Your task to perform on an android device: turn pop-ups on in chrome Image 0: 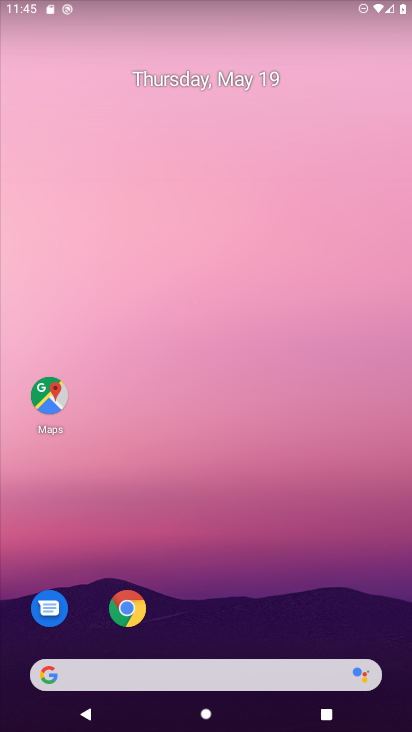
Step 0: press home button
Your task to perform on an android device: turn pop-ups on in chrome Image 1: 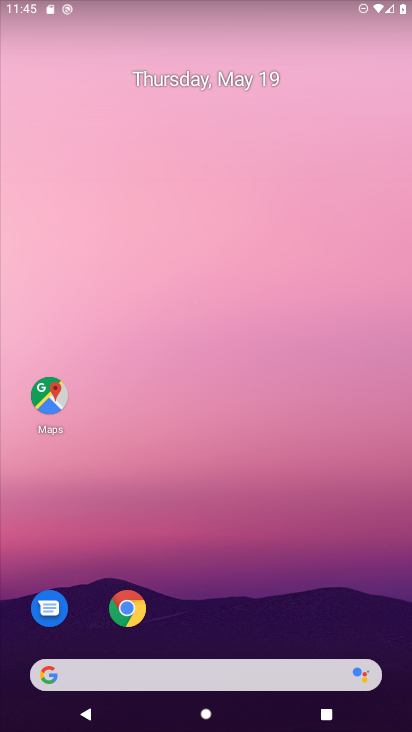
Step 1: click (129, 605)
Your task to perform on an android device: turn pop-ups on in chrome Image 2: 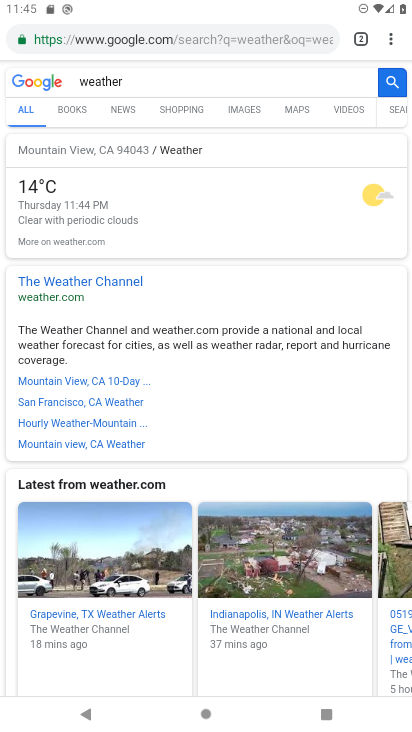
Step 2: drag from (393, 34) to (268, 426)
Your task to perform on an android device: turn pop-ups on in chrome Image 3: 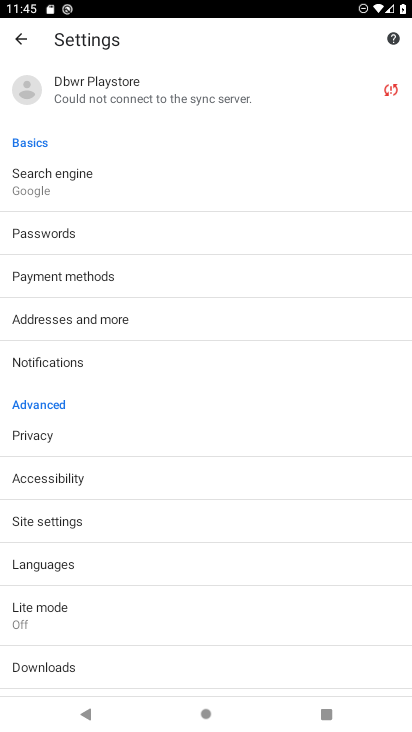
Step 3: click (66, 509)
Your task to perform on an android device: turn pop-ups on in chrome Image 4: 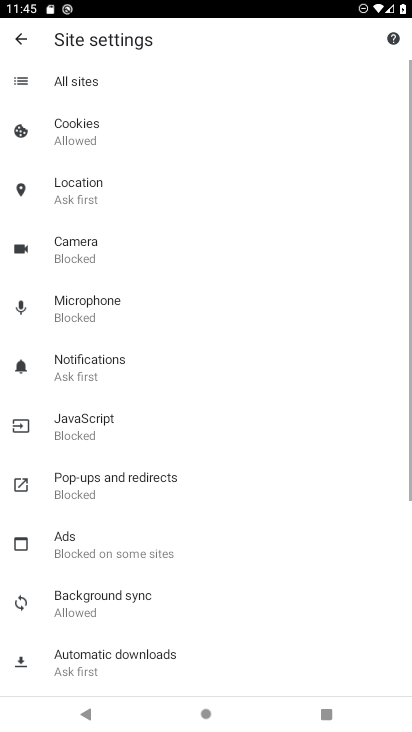
Step 4: click (90, 460)
Your task to perform on an android device: turn pop-ups on in chrome Image 5: 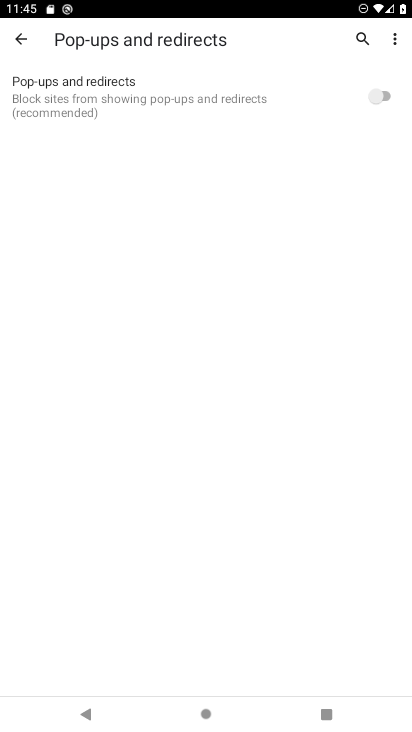
Step 5: click (387, 100)
Your task to perform on an android device: turn pop-ups on in chrome Image 6: 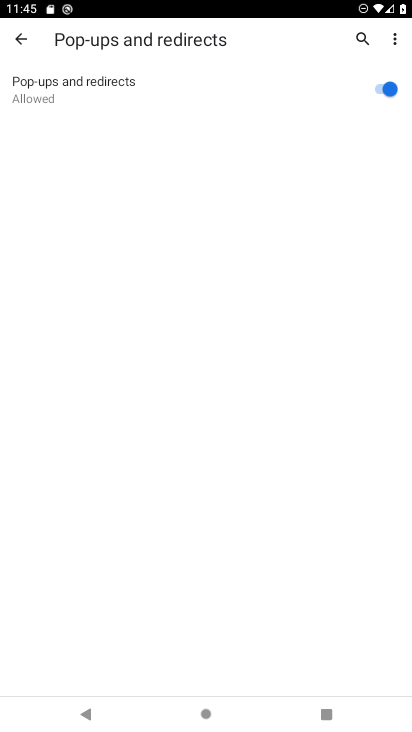
Step 6: task complete